Your task to perform on an android device: What's a good restaurant in Denver? Image 0: 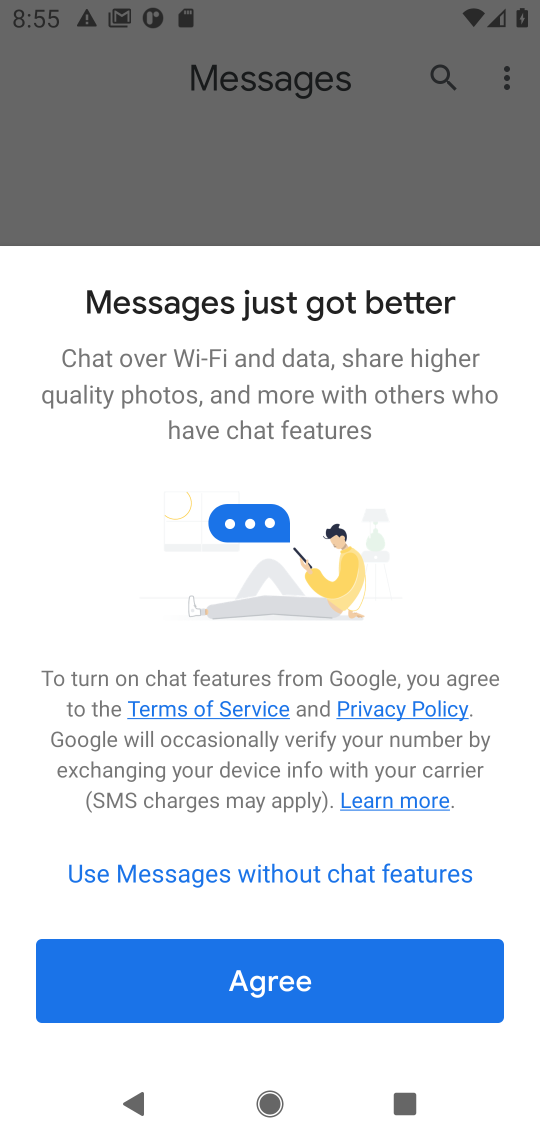
Step 0: press home button
Your task to perform on an android device: What's a good restaurant in Denver? Image 1: 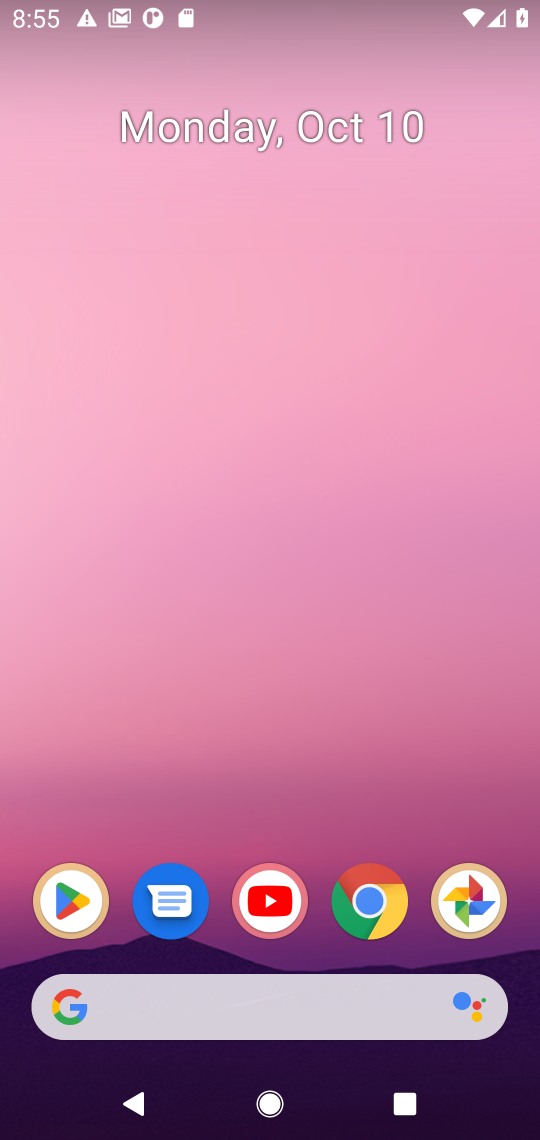
Step 1: click (306, 1009)
Your task to perform on an android device: What's a good restaurant in Denver? Image 2: 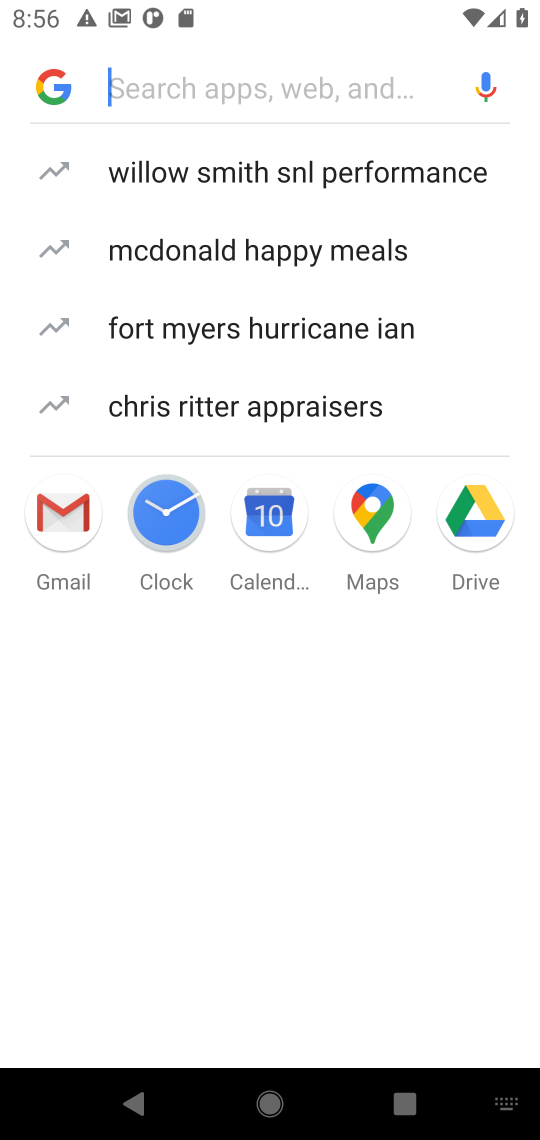
Step 2: type "What's a good restaurant in Denver"
Your task to perform on an android device: What's a good restaurant in Denver? Image 3: 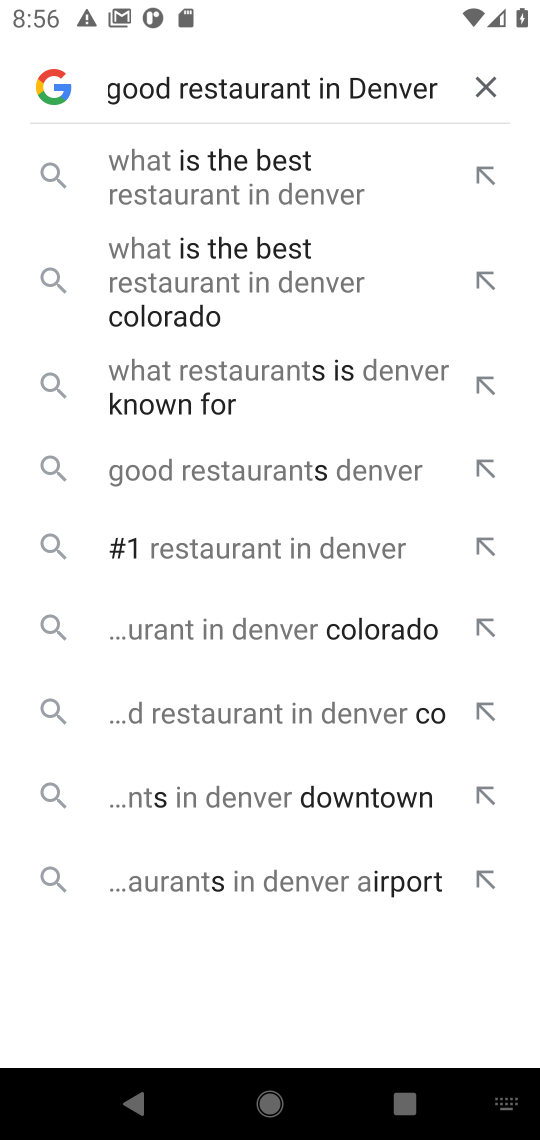
Step 3: press enter
Your task to perform on an android device: What's a good restaurant in Denver? Image 4: 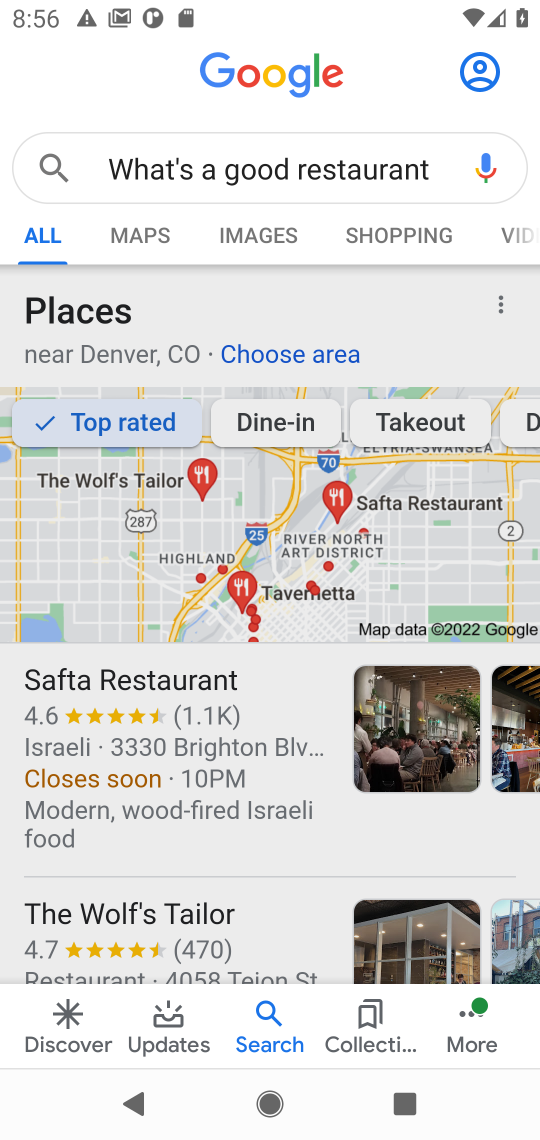
Step 4: drag from (289, 821) to (264, 512)
Your task to perform on an android device: What's a good restaurant in Denver? Image 5: 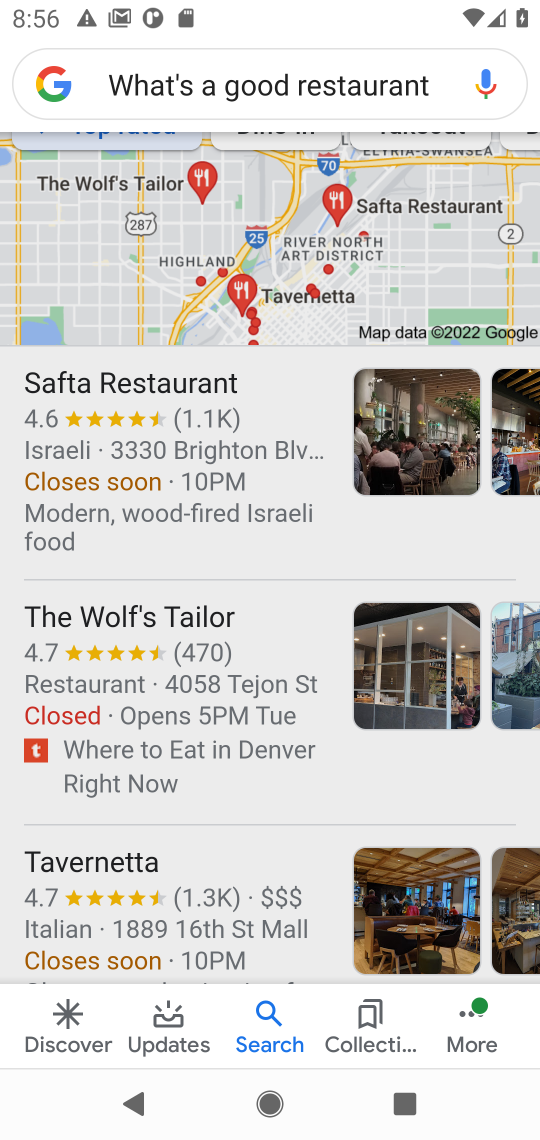
Step 5: drag from (239, 806) to (236, 539)
Your task to perform on an android device: What's a good restaurant in Denver? Image 6: 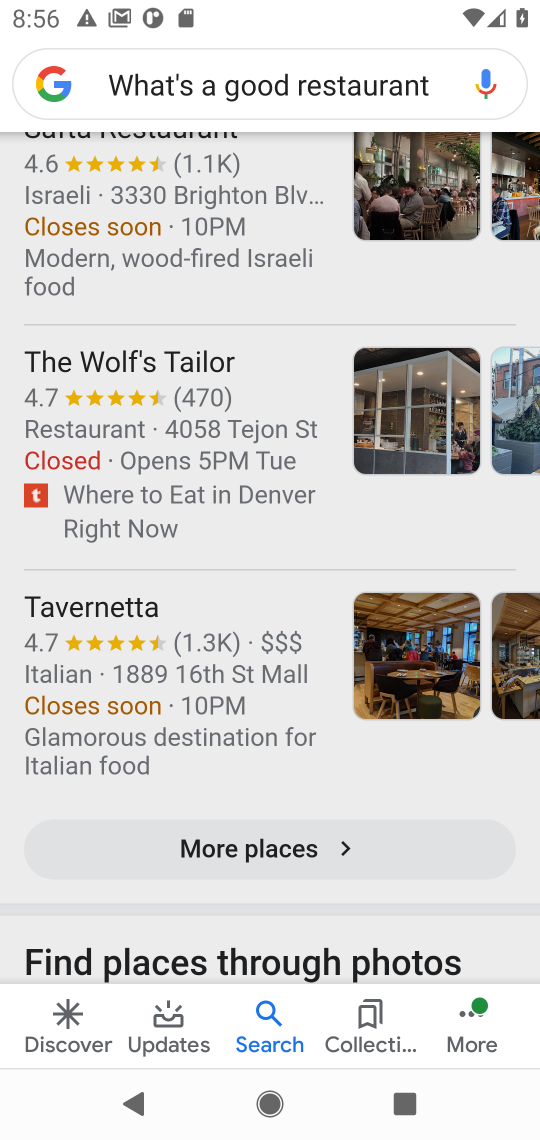
Step 6: click (268, 851)
Your task to perform on an android device: What's a good restaurant in Denver? Image 7: 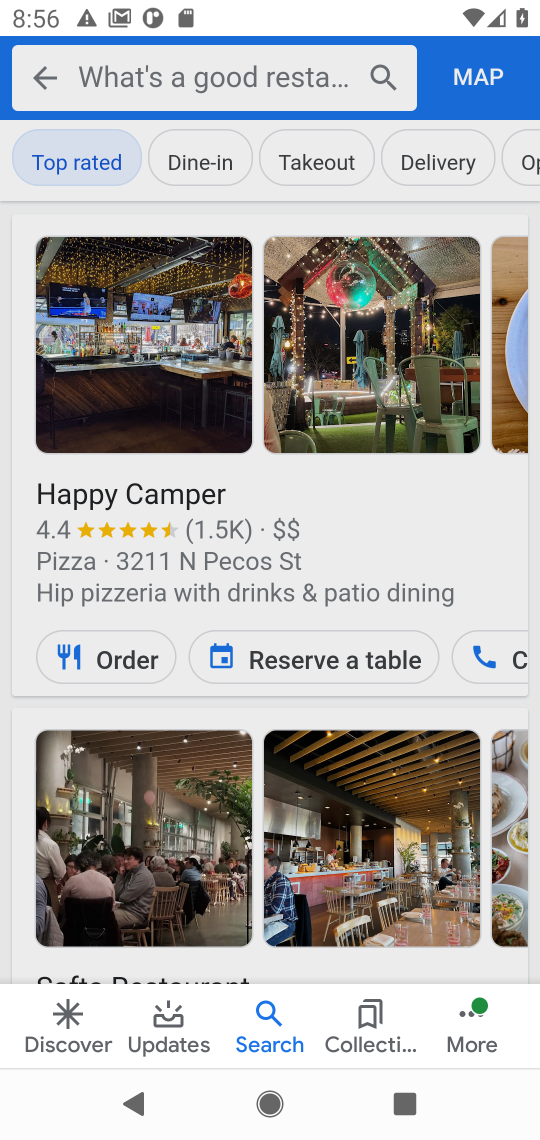
Step 7: task complete